Your task to perform on an android device: Do I have any events this weekend? Image 0: 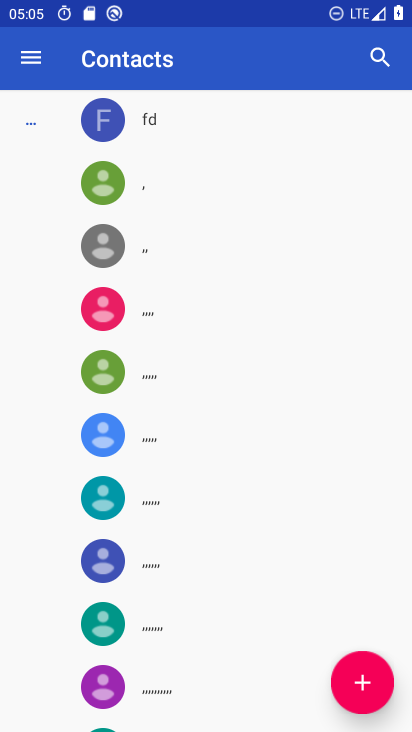
Step 0: press back button
Your task to perform on an android device: Do I have any events this weekend? Image 1: 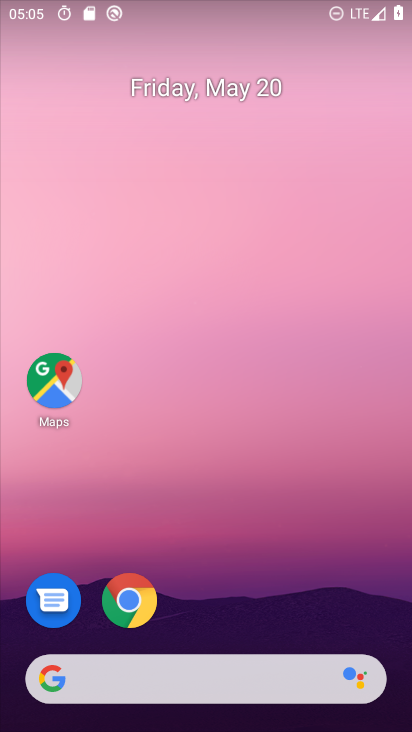
Step 1: drag from (192, 598) to (315, 145)
Your task to perform on an android device: Do I have any events this weekend? Image 2: 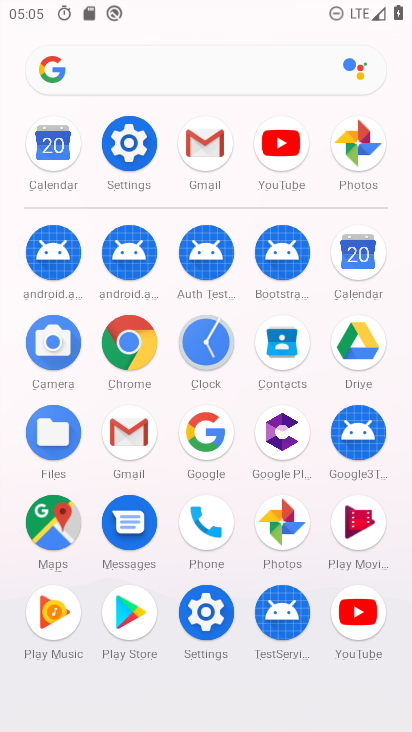
Step 2: click (369, 253)
Your task to perform on an android device: Do I have any events this weekend? Image 3: 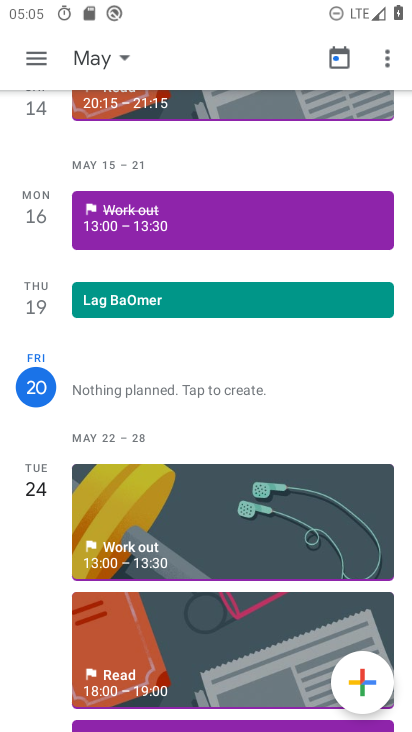
Step 3: task complete